Your task to perform on an android device: Go to ESPN.com Image 0: 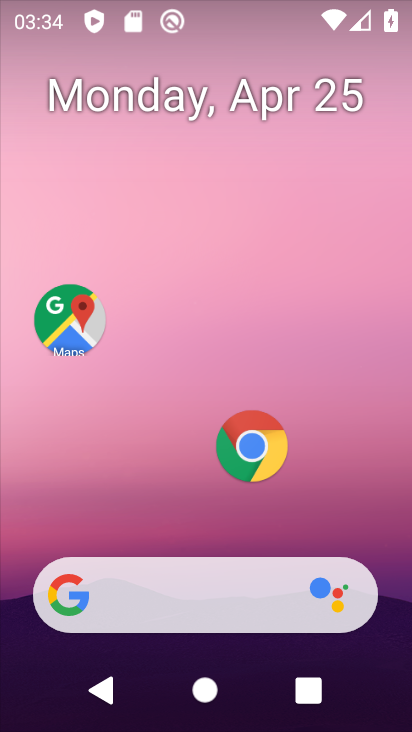
Step 0: click (218, 601)
Your task to perform on an android device: Go to ESPN.com Image 1: 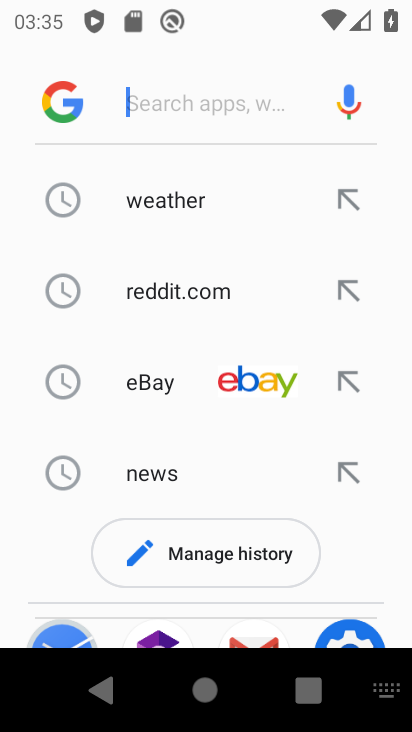
Step 1: type "espn.com"
Your task to perform on an android device: Go to ESPN.com Image 2: 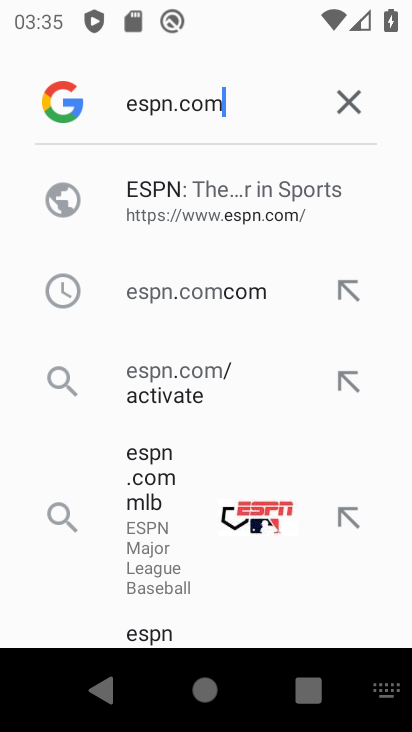
Step 2: click (206, 209)
Your task to perform on an android device: Go to ESPN.com Image 3: 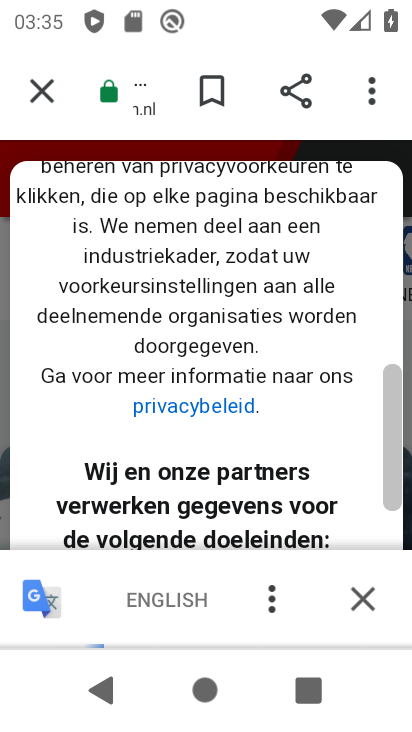
Step 3: task complete